Your task to perform on an android device: Open my contact list Image 0: 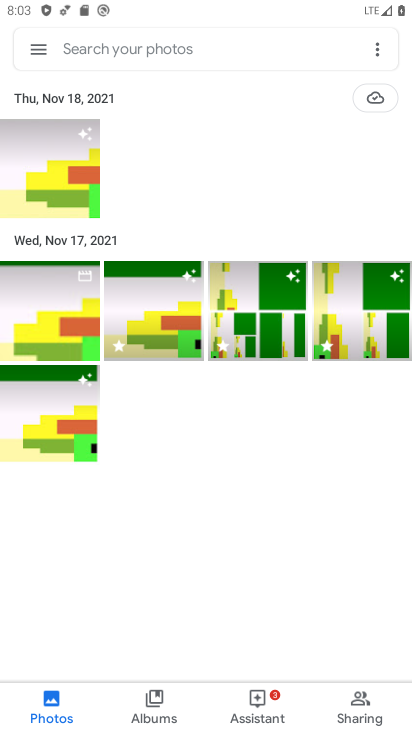
Step 0: press home button
Your task to perform on an android device: Open my contact list Image 1: 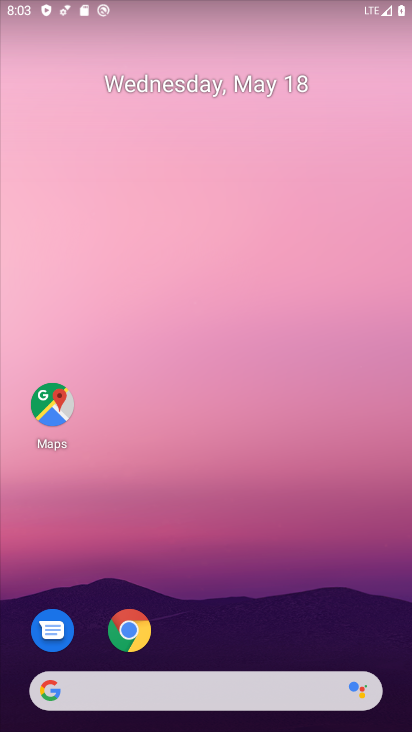
Step 1: drag from (257, 325) to (281, 168)
Your task to perform on an android device: Open my contact list Image 2: 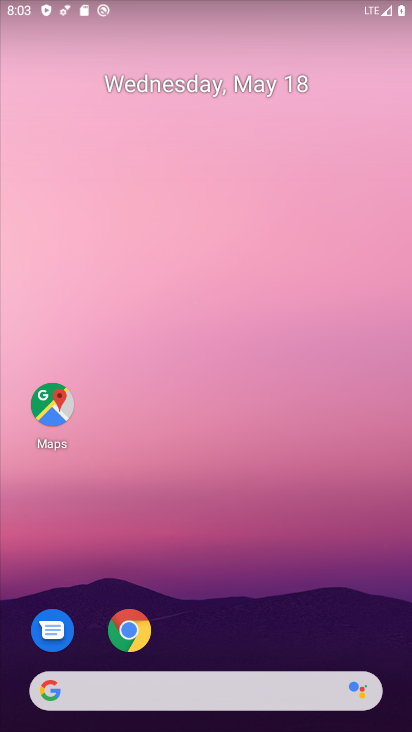
Step 2: drag from (159, 683) to (271, 200)
Your task to perform on an android device: Open my contact list Image 3: 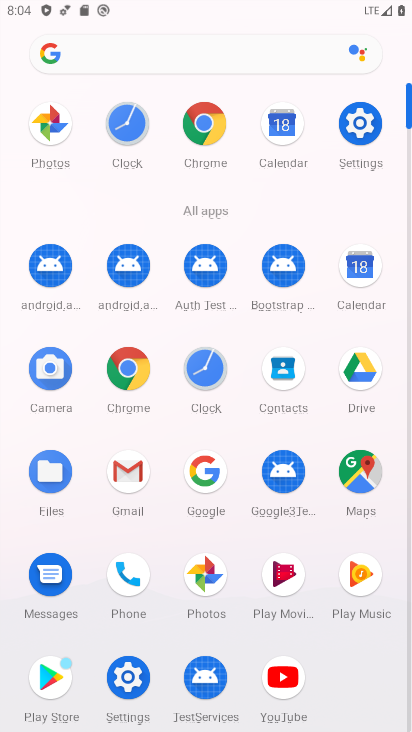
Step 3: click (290, 380)
Your task to perform on an android device: Open my contact list Image 4: 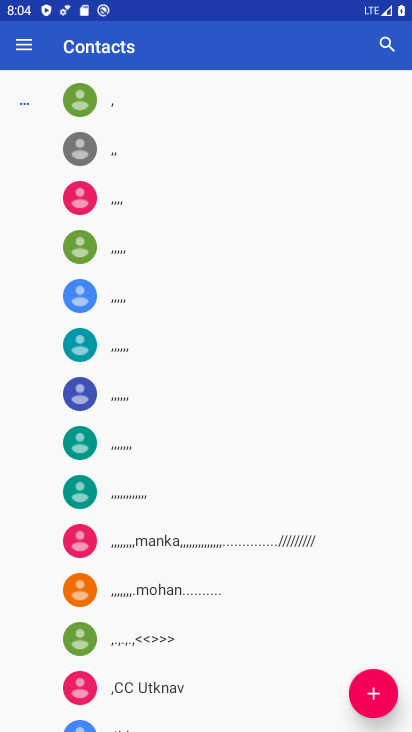
Step 4: task complete